Your task to perform on an android device: Open Google Chrome and click the shortcut for Amazon.com Image 0: 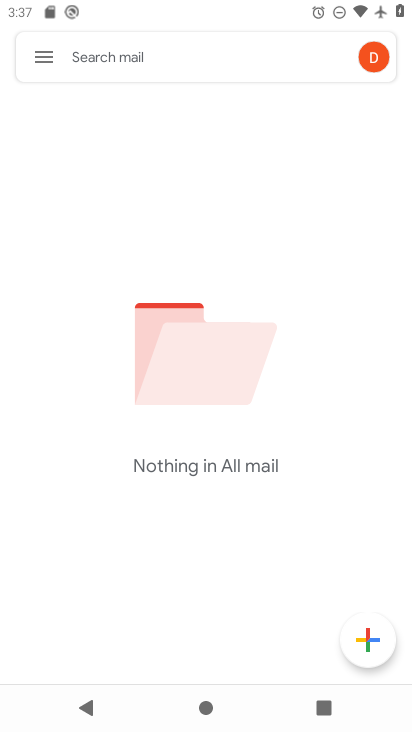
Step 0: drag from (296, 586) to (285, 525)
Your task to perform on an android device: Open Google Chrome and click the shortcut for Amazon.com Image 1: 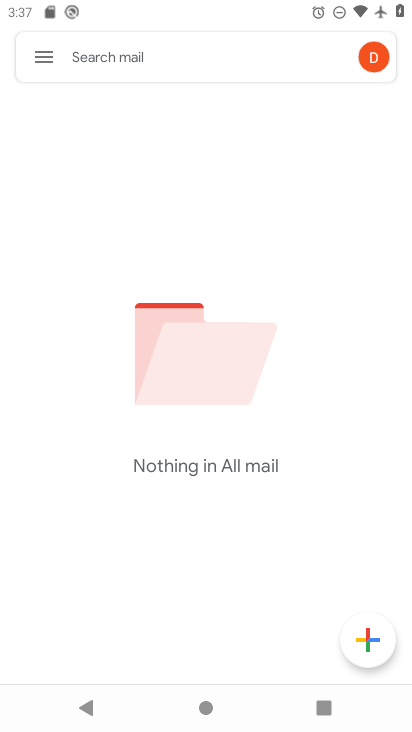
Step 1: press home button
Your task to perform on an android device: Open Google Chrome and click the shortcut for Amazon.com Image 2: 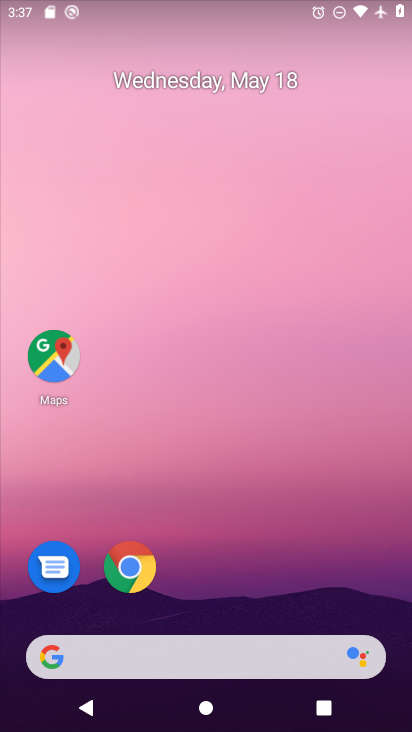
Step 2: click (143, 564)
Your task to perform on an android device: Open Google Chrome and click the shortcut for Amazon.com Image 3: 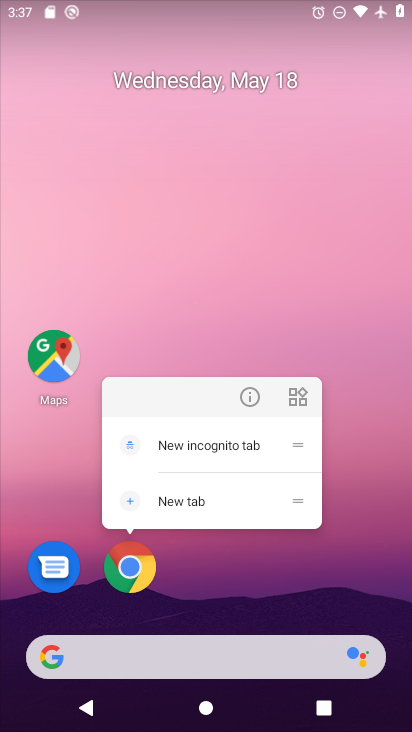
Step 3: click (343, 532)
Your task to perform on an android device: Open Google Chrome and click the shortcut for Amazon.com Image 4: 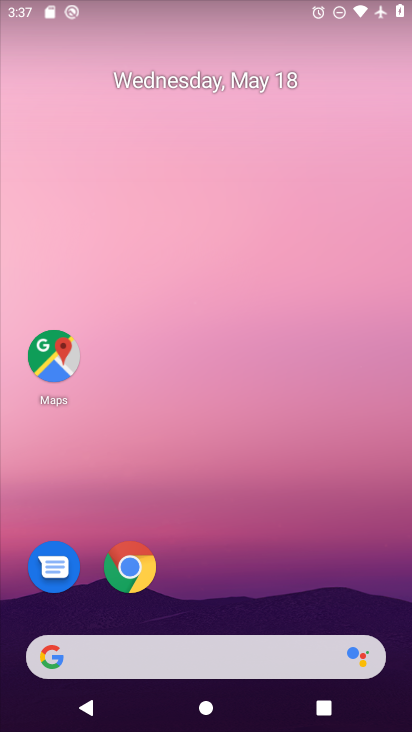
Step 4: click (120, 556)
Your task to perform on an android device: Open Google Chrome and click the shortcut for Amazon.com Image 5: 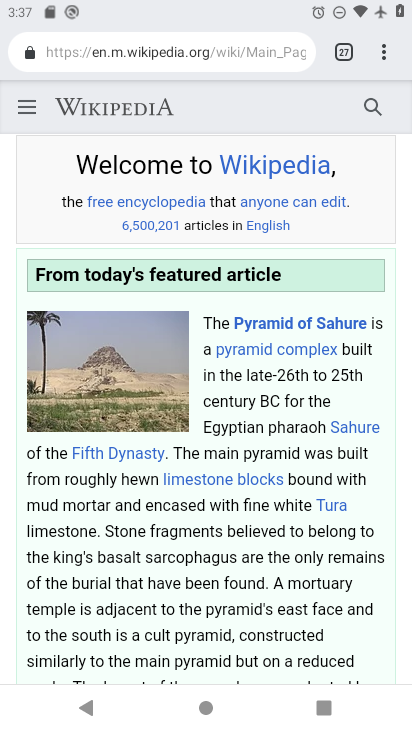
Step 5: click (377, 44)
Your task to perform on an android device: Open Google Chrome and click the shortcut for Amazon.com Image 6: 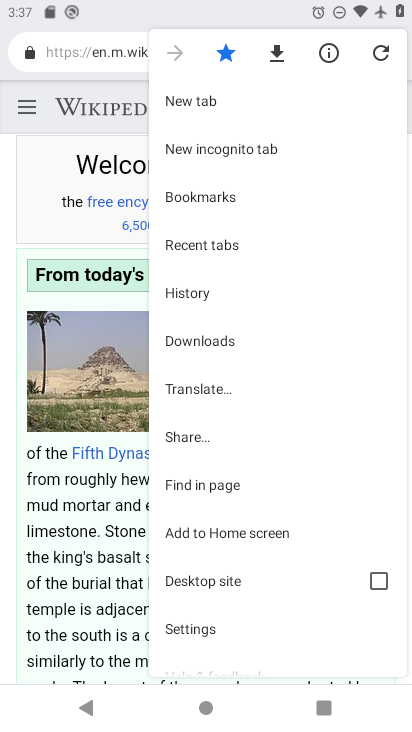
Step 6: click (223, 95)
Your task to perform on an android device: Open Google Chrome and click the shortcut for Amazon.com Image 7: 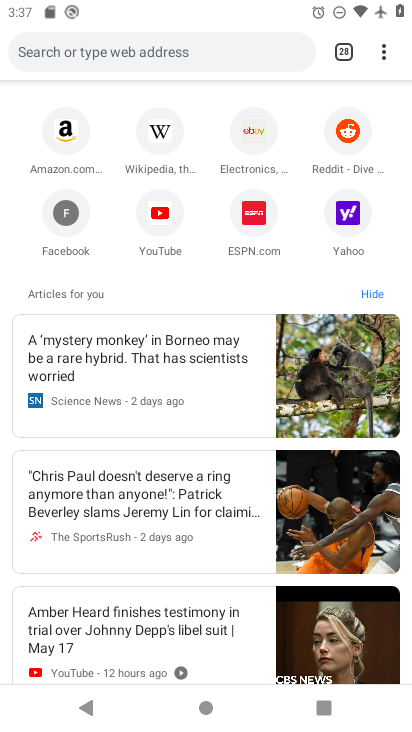
Step 7: click (63, 121)
Your task to perform on an android device: Open Google Chrome and click the shortcut for Amazon.com Image 8: 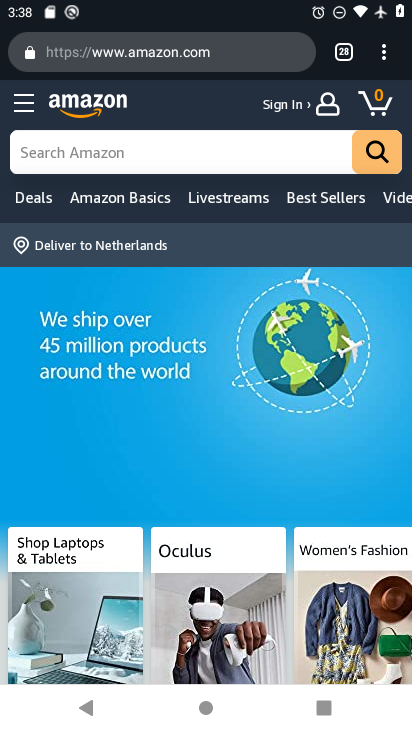
Step 8: task complete